Your task to perform on an android device: turn on wifi Image 0: 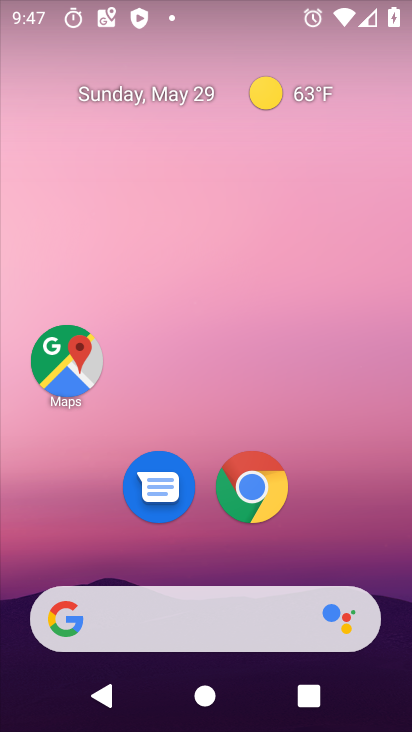
Step 0: drag from (207, 506) to (224, 16)
Your task to perform on an android device: turn on wifi Image 1: 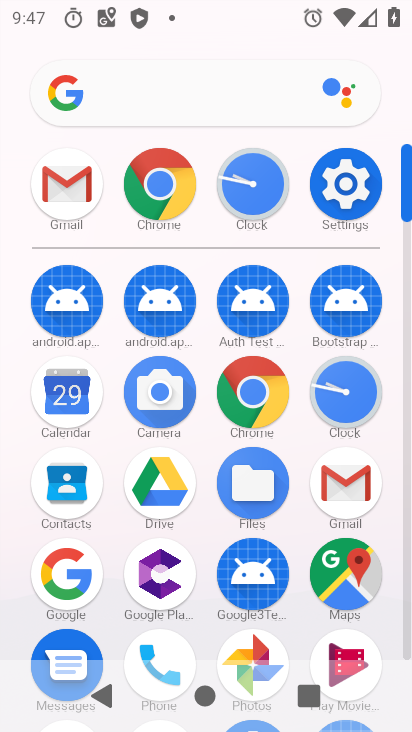
Step 1: click (344, 210)
Your task to perform on an android device: turn on wifi Image 2: 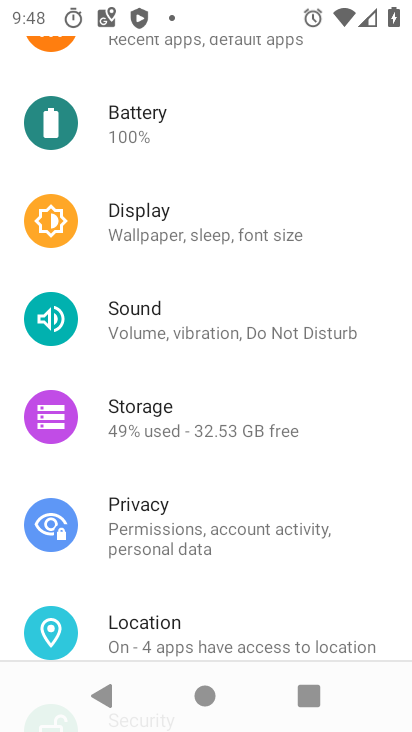
Step 2: drag from (325, 286) to (308, 731)
Your task to perform on an android device: turn on wifi Image 3: 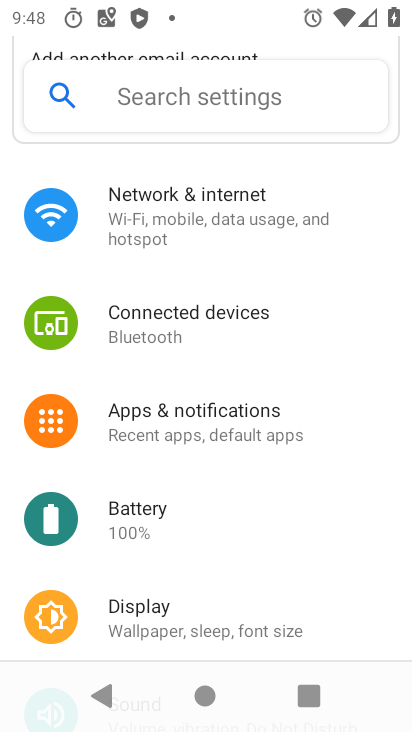
Step 3: drag from (213, 233) to (198, 664)
Your task to perform on an android device: turn on wifi Image 4: 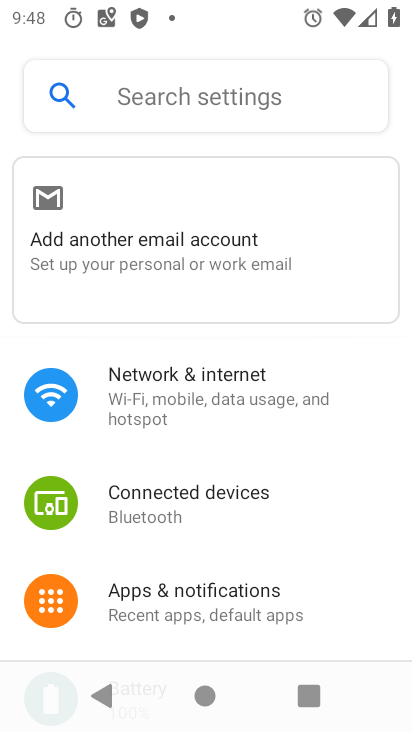
Step 4: click (249, 381)
Your task to perform on an android device: turn on wifi Image 5: 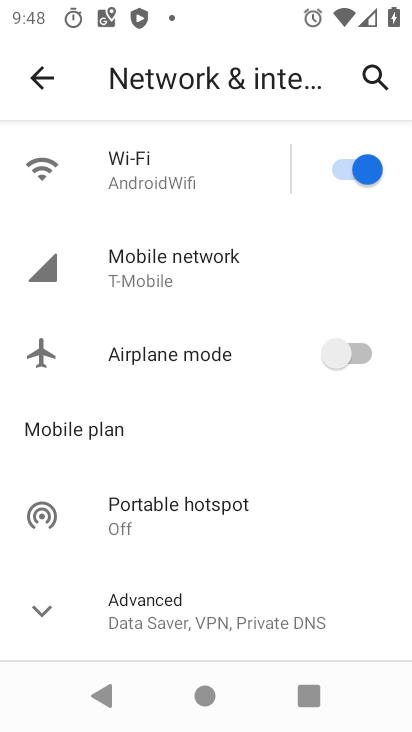
Step 5: task complete